Your task to perform on an android device: open app "Instagram" (install if not already installed) and go to login screen Image 0: 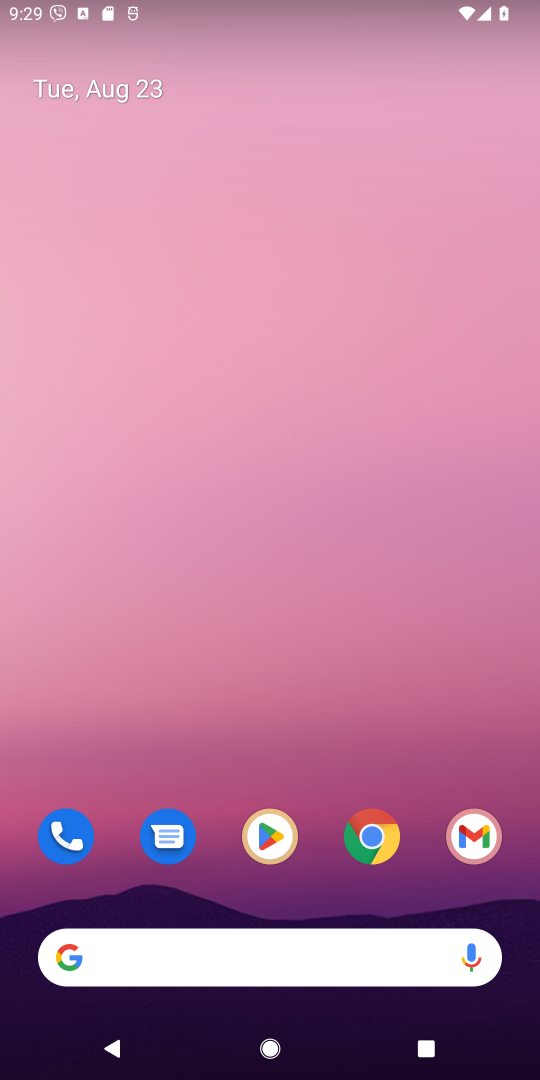
Step 0: click (278, 848)
Your task to perform on an android device: open app "Instagram" (install if not already installed) and go to login screen Image 1: 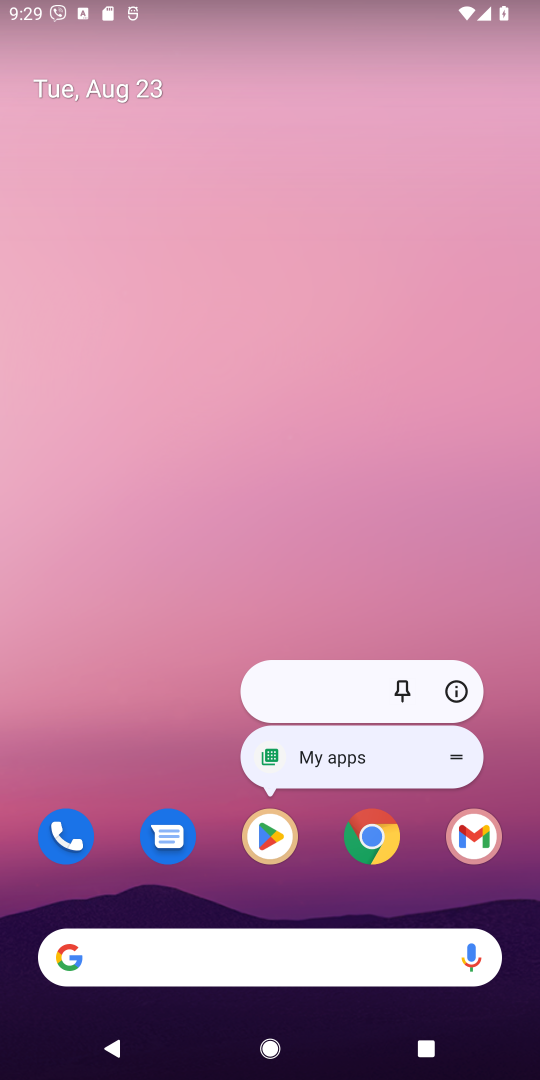
Step 1: click (272, 839)
Your task to perform on an android device: open app "Instagram" (install if not already installed) and go to login screen Image 2: 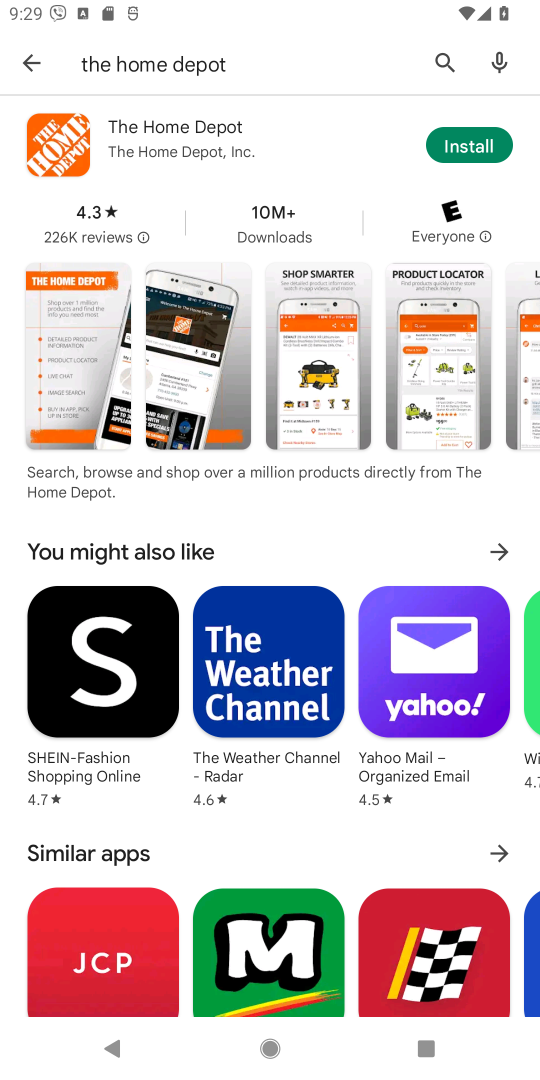
Step 2: click (440, 54)
Your task to perform on an android device: open app "Instagram" (install if not already installed) and go to login screen Image 3: 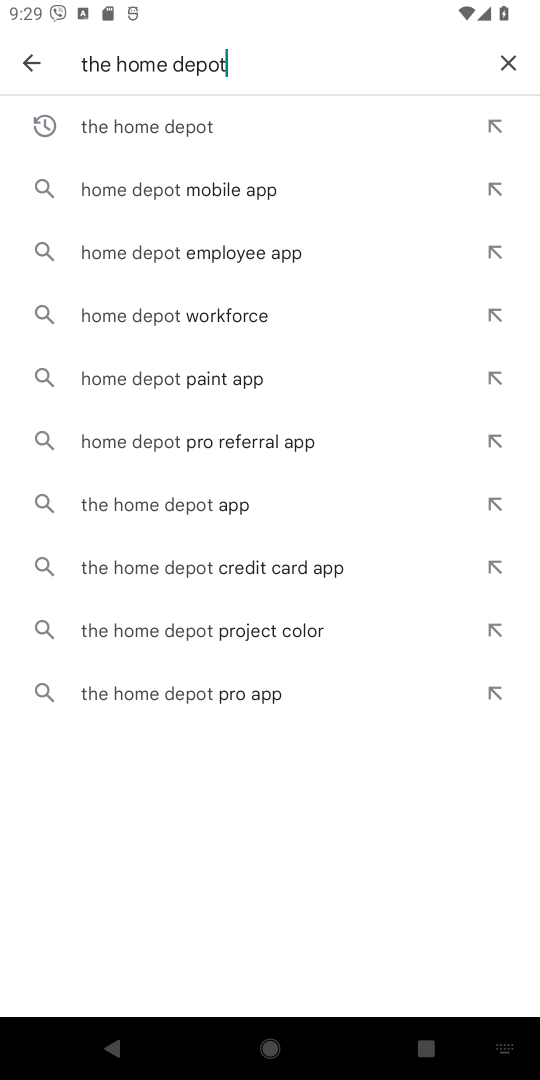
Step 3: click (515, 67)
Your task to perform on an android device: open app "Instagram" (install if not already installed) and go to login screen Image 4: 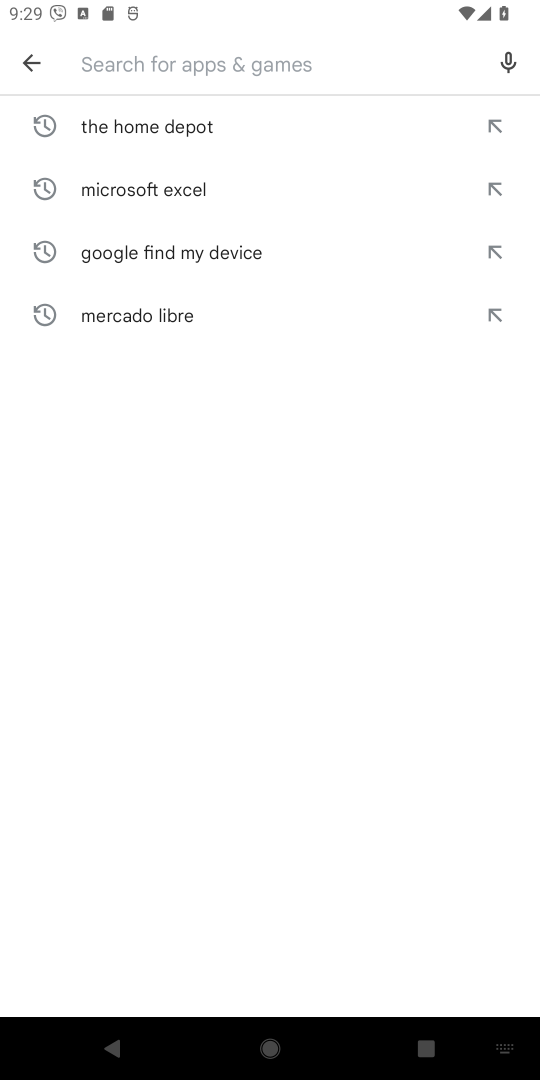
Step 4: type "Instagram"
Your task to perform on an android device: open app "Instagram" (install if not already installed) and go to login screen Image 5: 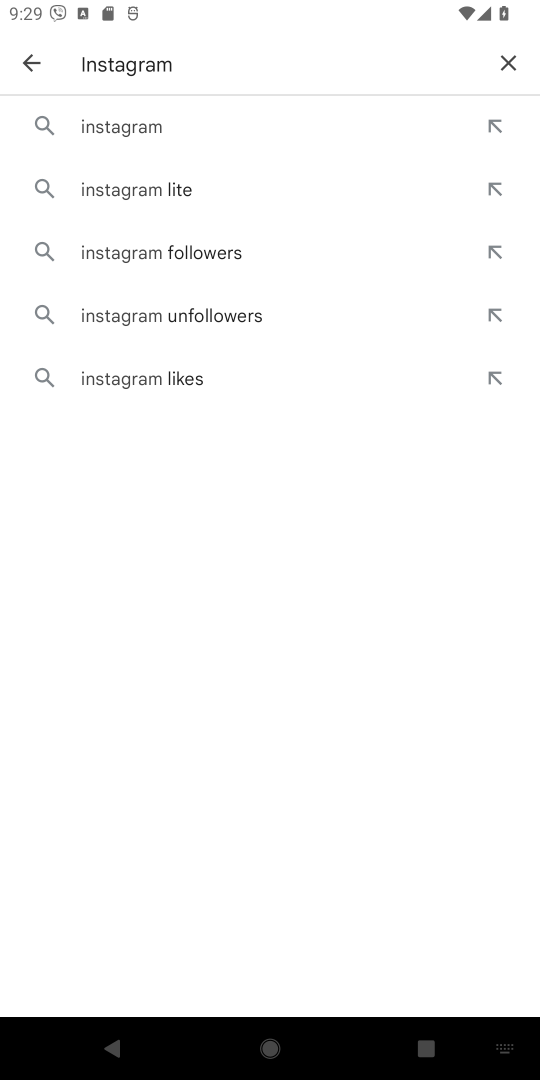
Step 5: click (121, 126)
Your task to perform on an android device: open app "Instagram" (install if not already installed) and go to login screen Image 6: 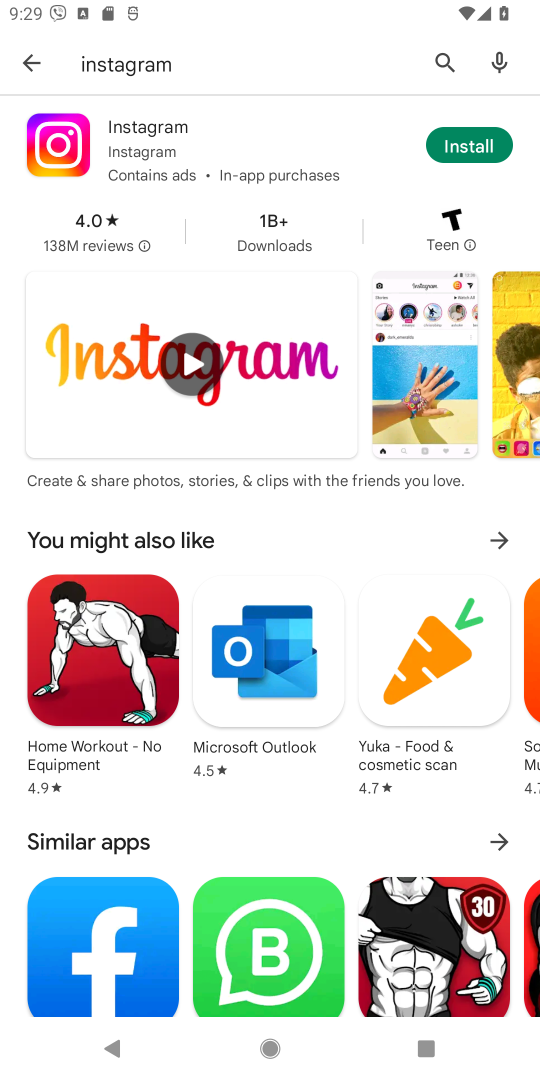
Step 6: click (466, 143)
Your task to perform on an android device: open app "Instagram" (install if not already installed) and go to login screen Image 7: 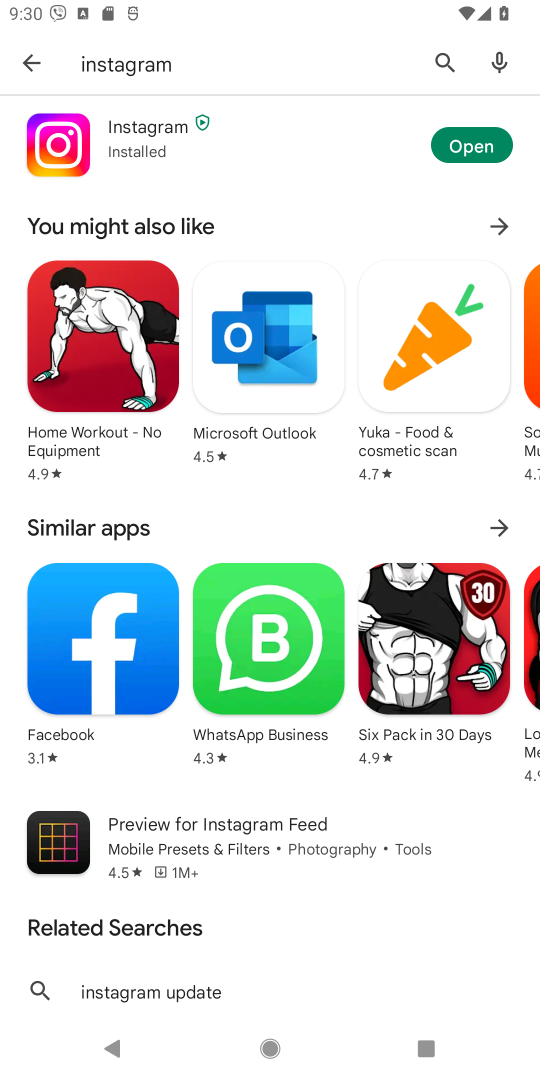
Step 7: click (487, 139)
Your task to perform on an android device: open app "Instagram" (install if not already installed) and go to login screen Image 8: 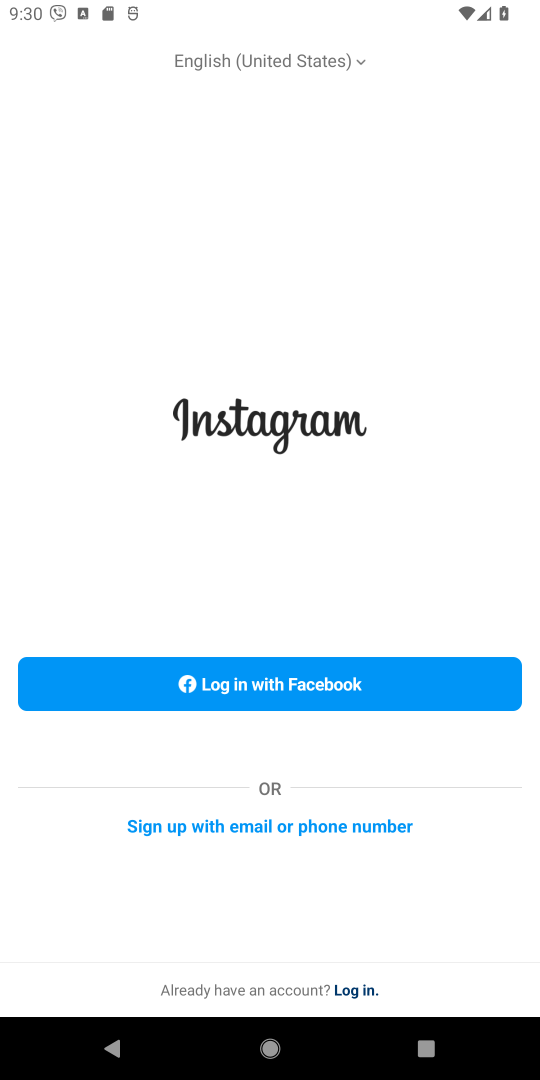
Step 8: task complete